Your task to perform on an android device: Show me recent news Image 0: 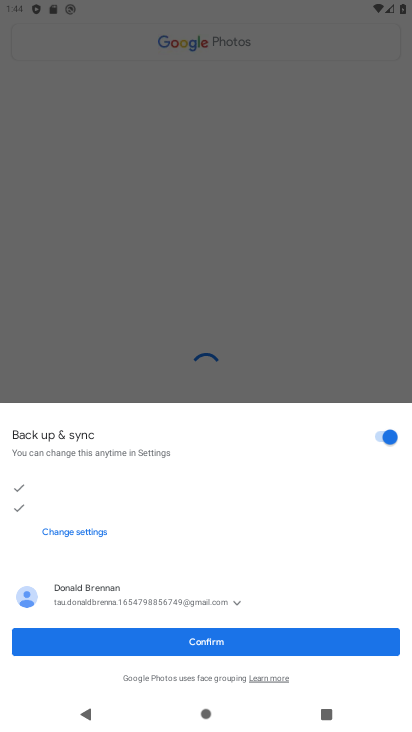
Step 0: press home button
Your task to perform on an android device: Show me recent news Image 1: 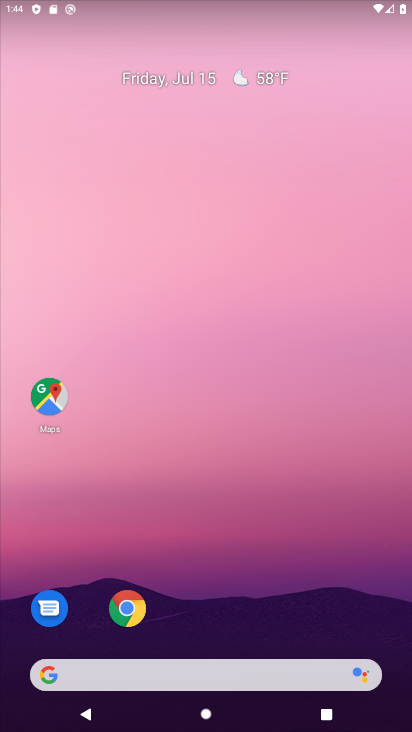
Step 1: task complete